Your task to perform on an android device: turn on sleep mode Image 0: 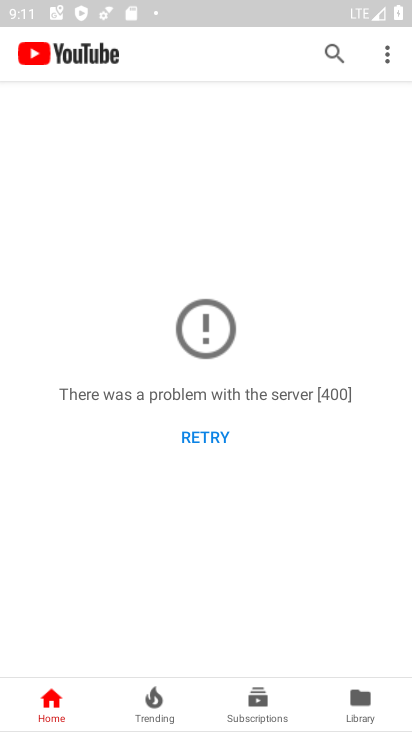
Step 0: press home button
Your task to perform on an android device: turn on sleep mode Image 1: 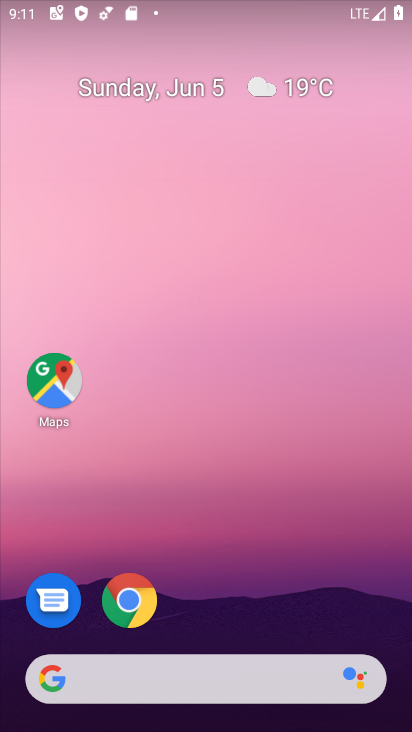
Step 1: drag from (244, 612) to (223, 170)
Your task to perform on an android device: turn on sleep mode Image 2: 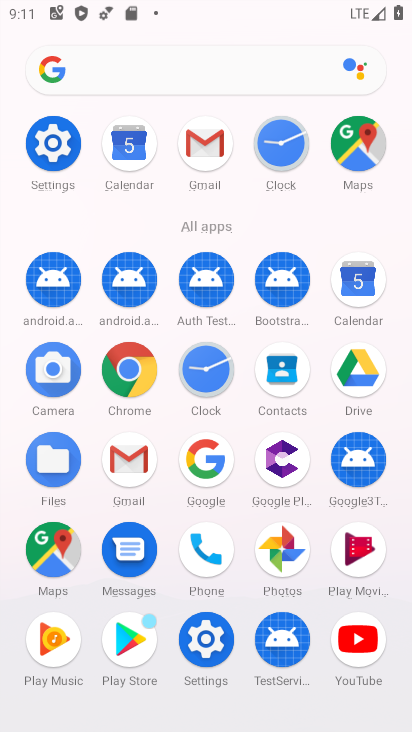
Step 2: click (61, 171)
Your task to perform on an android device: turn on sleep mode Image 3: 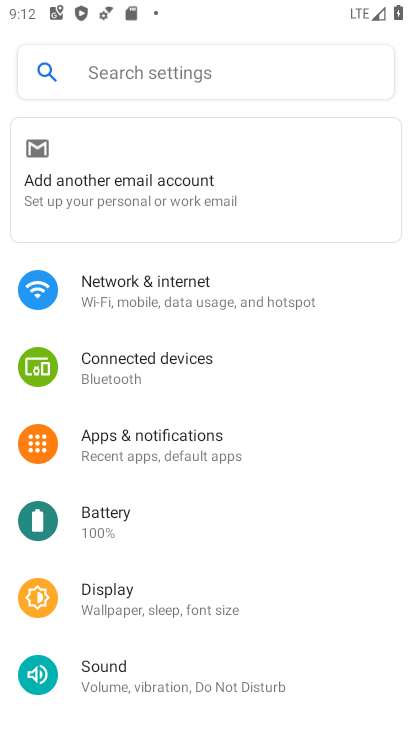
Step 3: click (203, 587)
Your task to perform on an android device: turn on sleep mode Image 4: 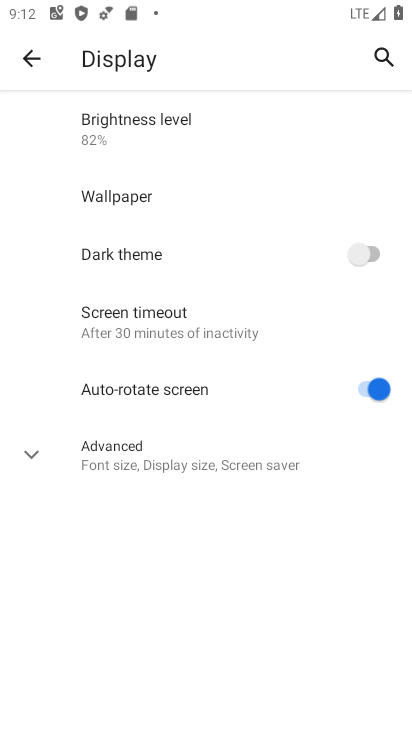
Step 4: click (214, 470)
Your task to perform on an android device: turn on sleep mode Image 5: 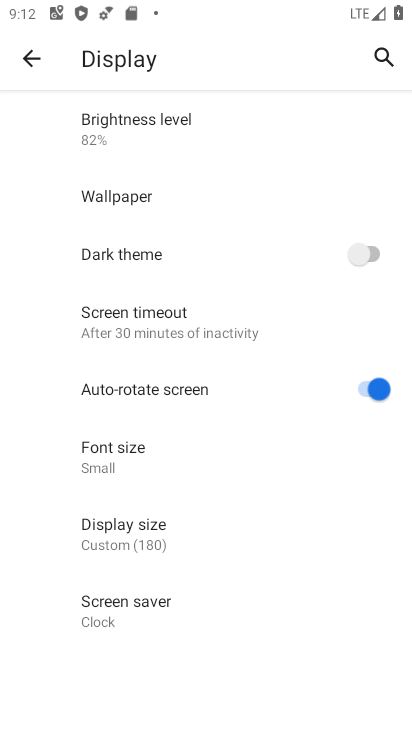
Step 5: task complete